Your task to perform on an android device: Go to Maps Image 0: 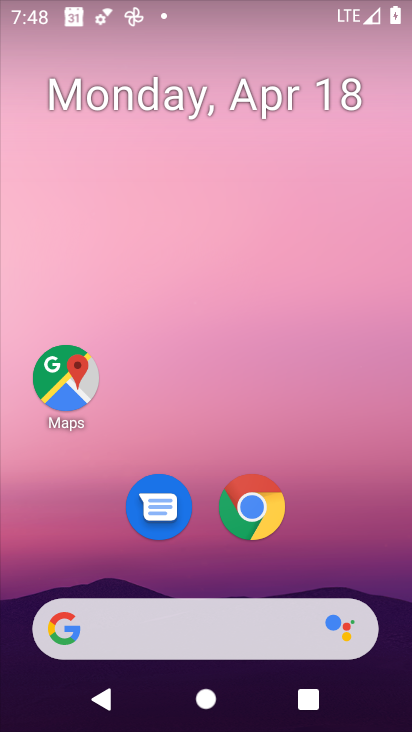
Step 0: click (81, 377)
Your task to perform on an android device: Go to Maps Image 1: 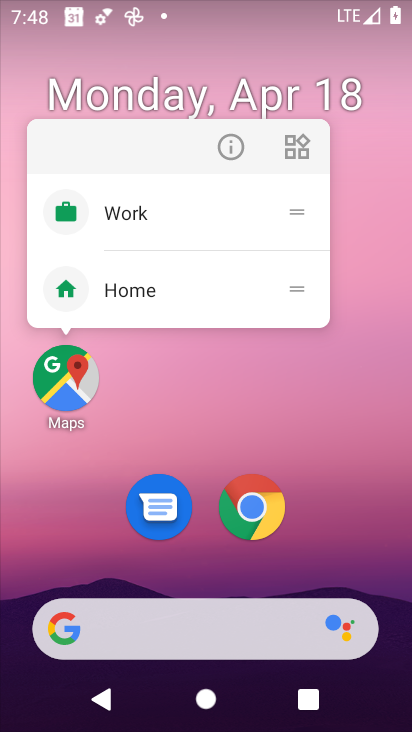
Step 1: click (66, 374)
Your task to perform on an android device: Go to Maps Image 2: 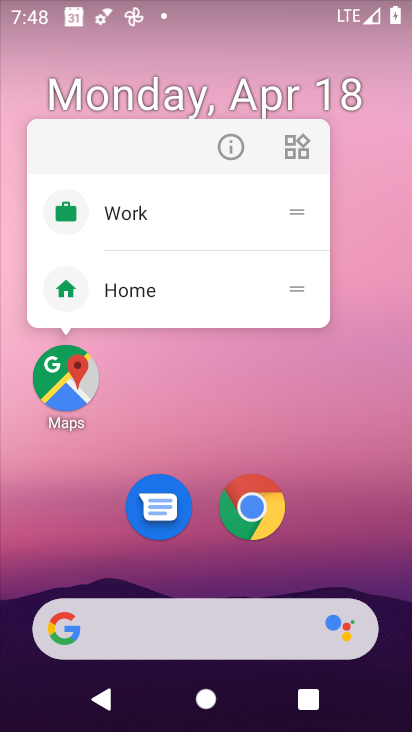
Step 2: click (66, 372)
Your task to perform on an android device: Go to Maps Image 3: 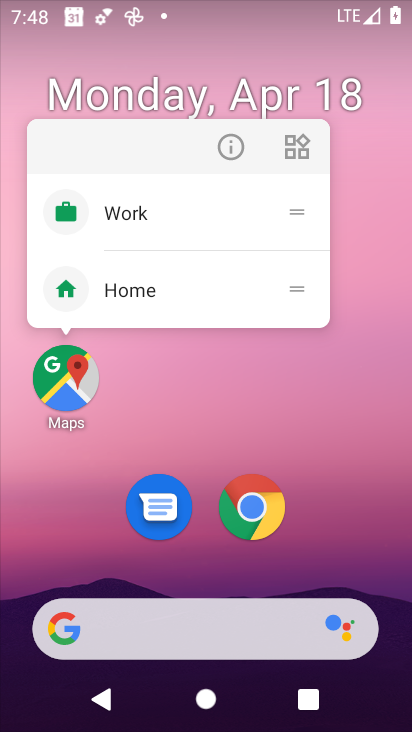
Step 3: click (66, 372)
Your task to perform on an android device: Go to Maps Image 4: 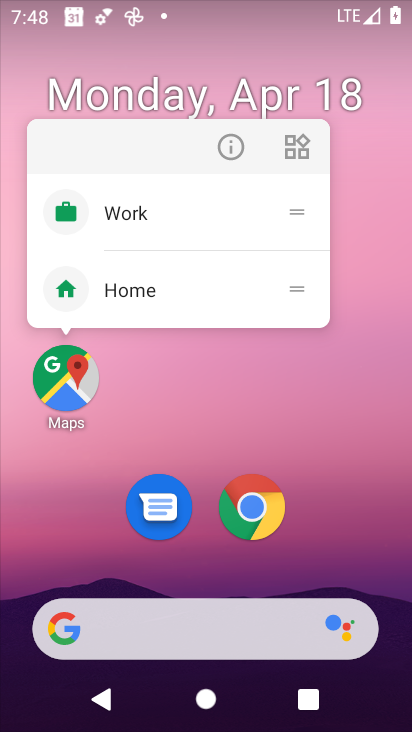
Step 4: click (65, 348)
Your task to perform on an android device: Go to Maps Image 5: 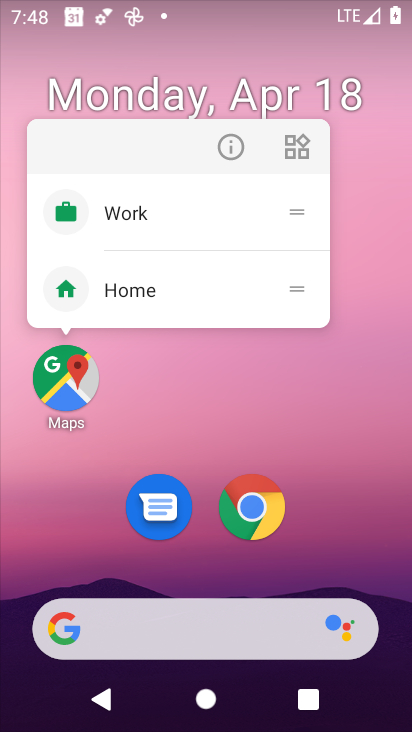
Step 5: click (59, 378)
Your task to perform on an android device: Go to Maps Image 6: 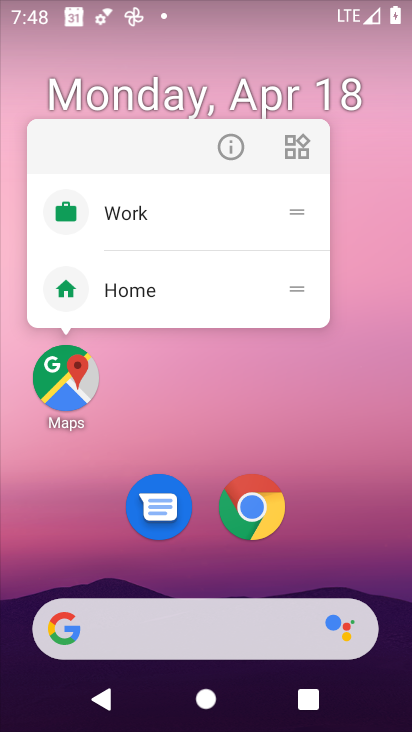
Step 6: click (59, 378)
Your task to perform on an android device: Go to Maps Image 7: 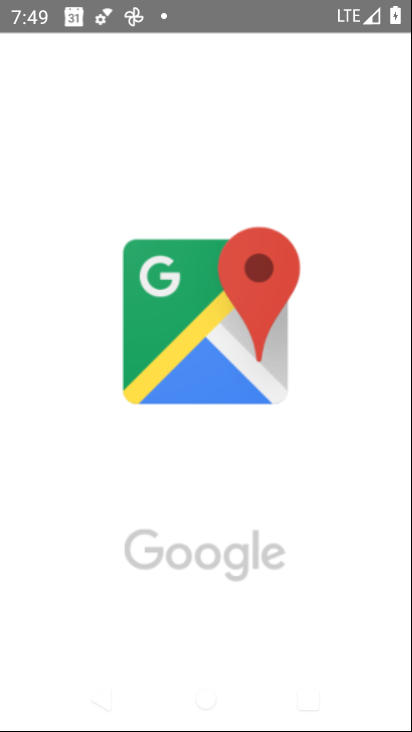
Step 7: task complete